Your task to perform on an android device: change the clock display to analog Image 0: 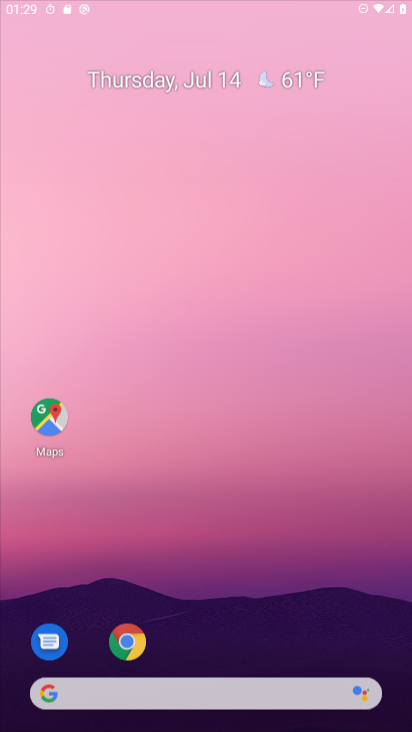
Step 0: press home button
Your task to perform on an android device: change the clock display to analog Image 1: 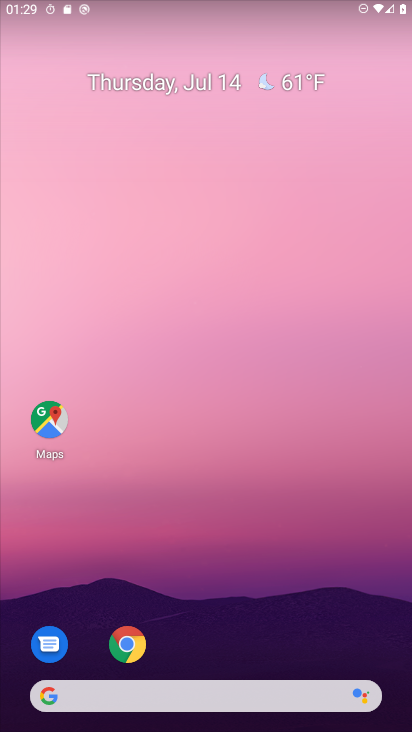
Step 1: drag from (297, 631) to (235, 185)
Your task to perform on an android device: change the clock display to analog Image 2: 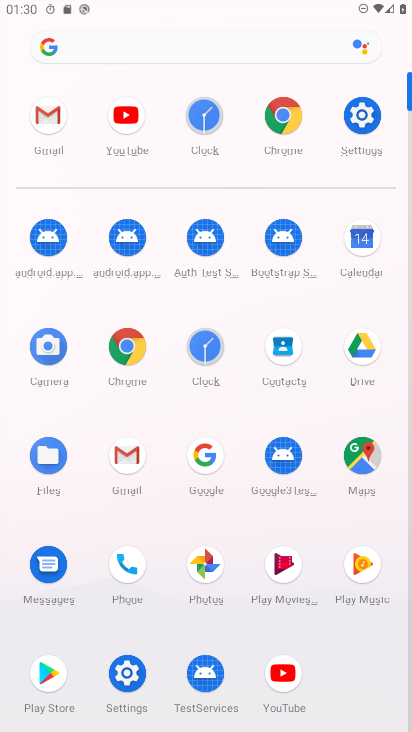
Step 2: click (208, 351)
Your task to perform on an android device: change the clock display to analog Image 3: 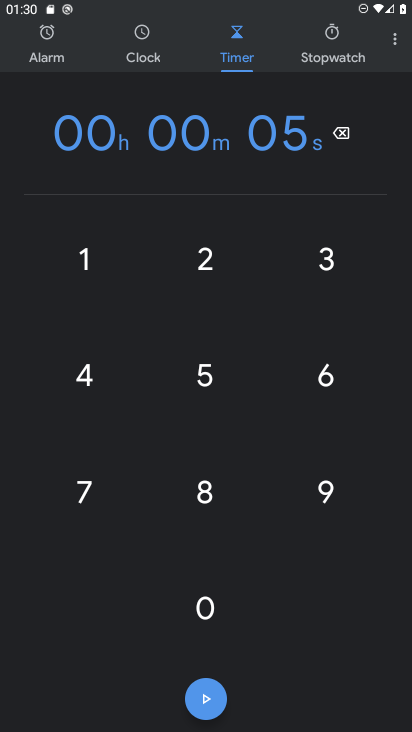
Step 3: click (395, 41)
Your task to perform on an android device: change the clock display to analog Image 4: 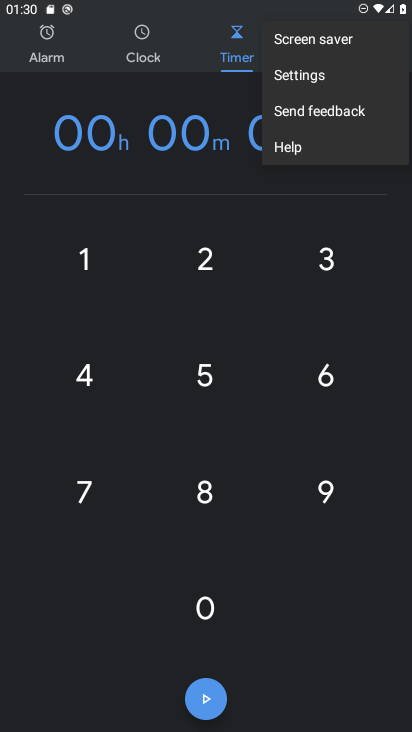
Step 4: click (317, 73)
Your task to perform on an android device: change the clock display to analog Image 5: 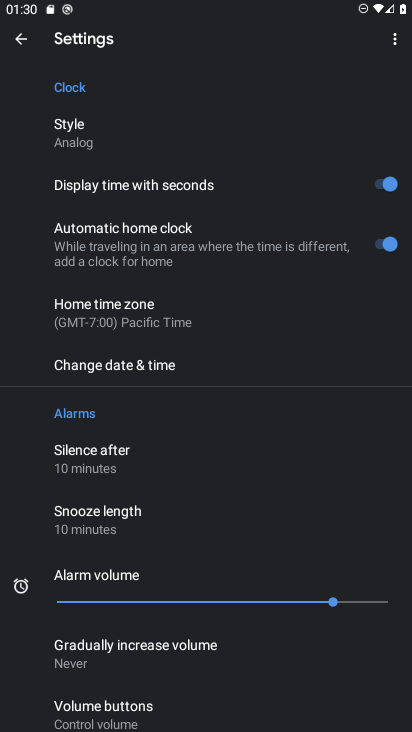
Step 5: task complete